Your task to perform on an android device: find which apps use the phone's location Image 0: 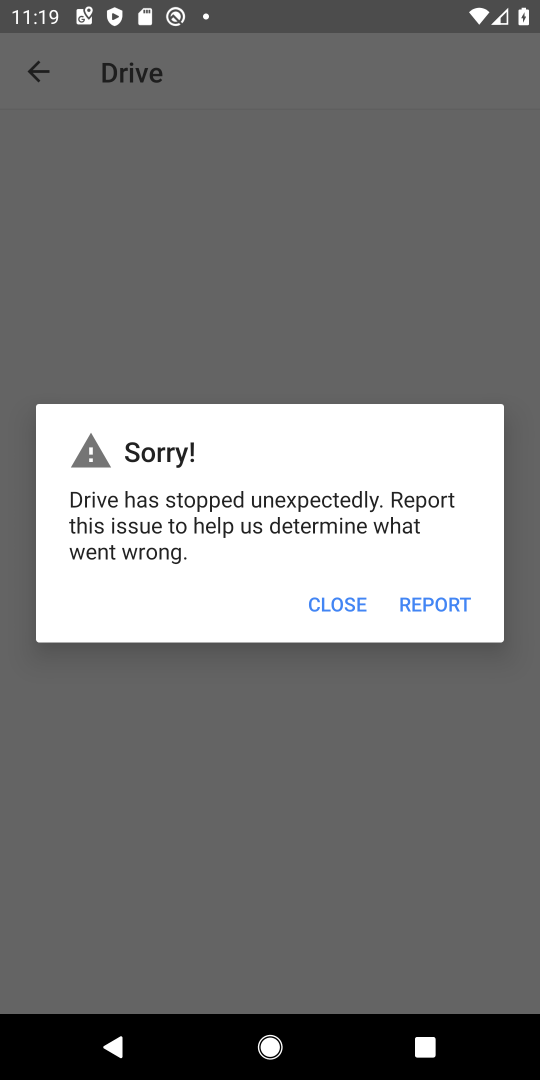
Step 0: press home button
Your task to perform on an android device: find which apps use the phone's location Image 1: 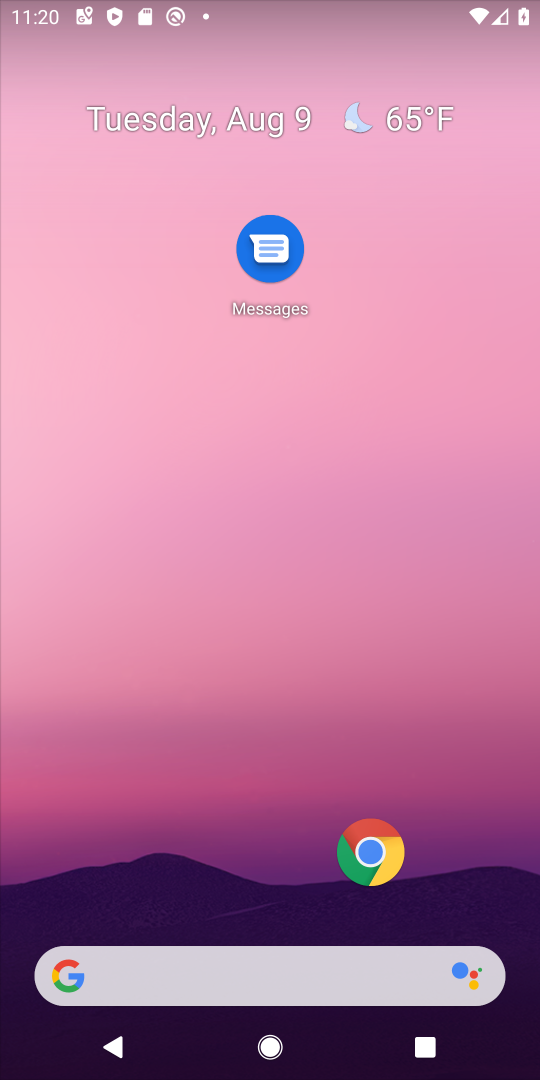
Step 1: drag from (252, 912) to (238, 35)
Your task to perform on an android device: find which apps use the phone's location Image 2: 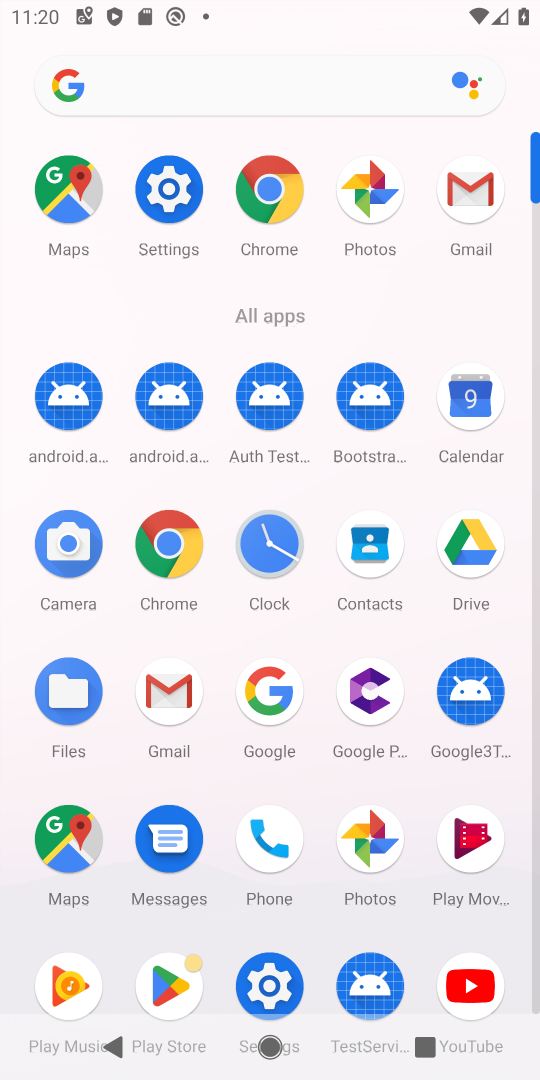
Step 2: click (185, 197)
Your task to perform on an android device: find which apps use the phone's location Image 3: 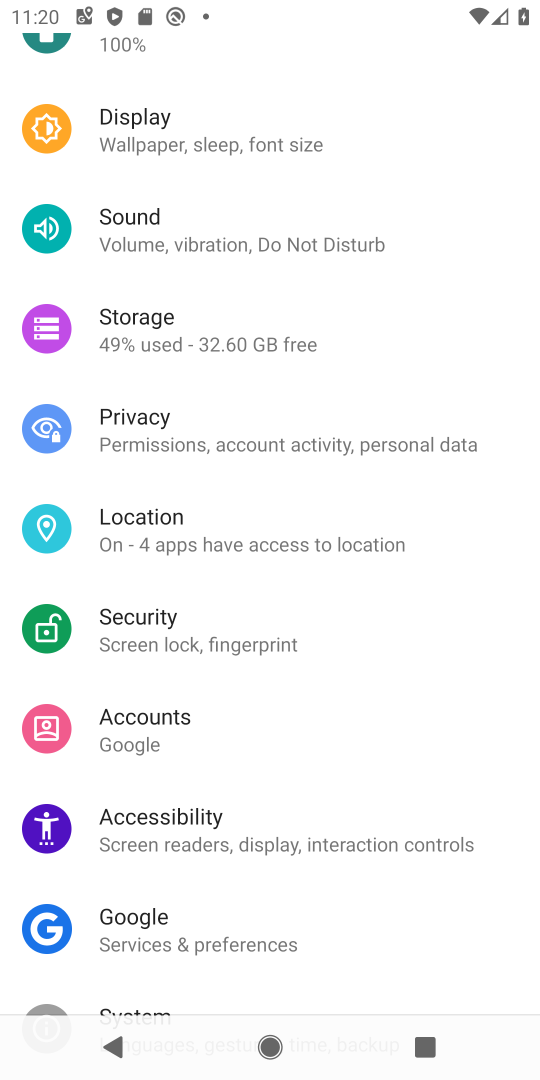
Step 3: click (266, 539)
Your task to perform on an android device: find which apps use the phone's location Image 4: 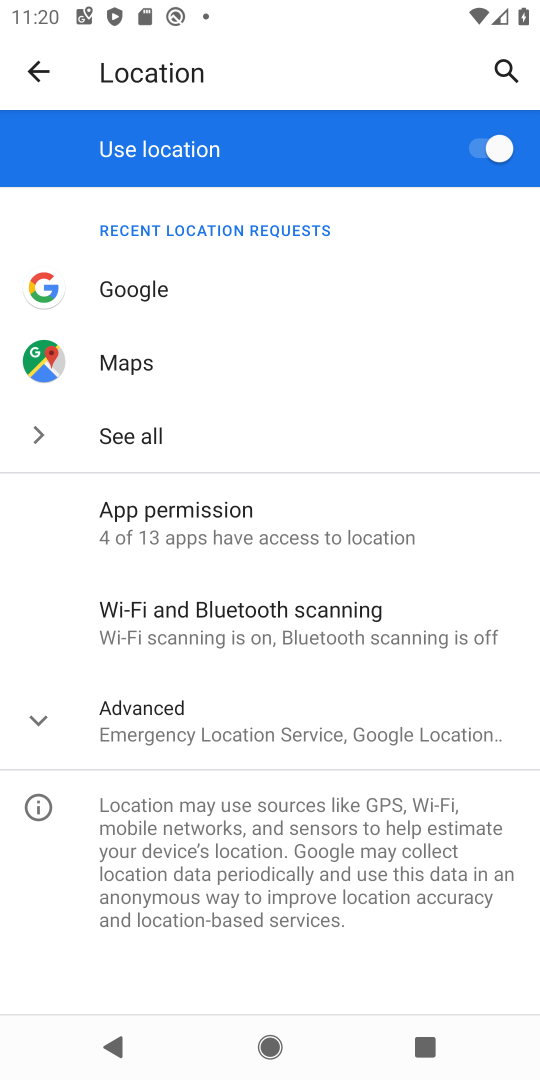
Step 4: click (239, 450)
Your task to perform on an android device: find which apps use the phone's location Image 5: 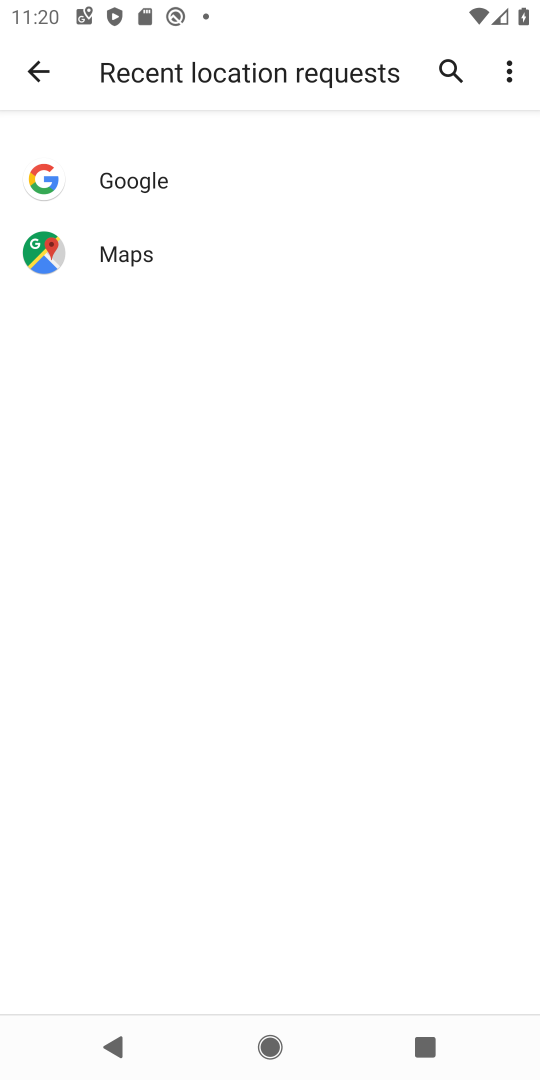
Step 5: task complete